Your task to perform on an android device: find which apps use the phone's location Image 0: 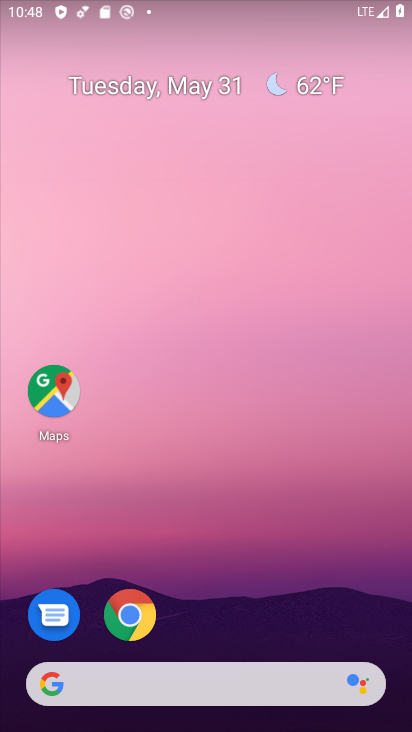
Step 0: drag from (194, 683) to (202, 75)
Your task to perform on an android device: find which apps use the phone's location Image 1: 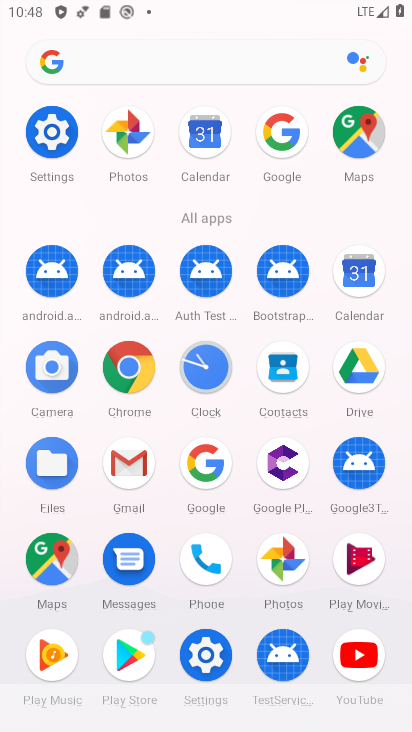
Step 1: click (48, 127)
Your task to perform on an android device: find which apps use the phone's location Image 2: 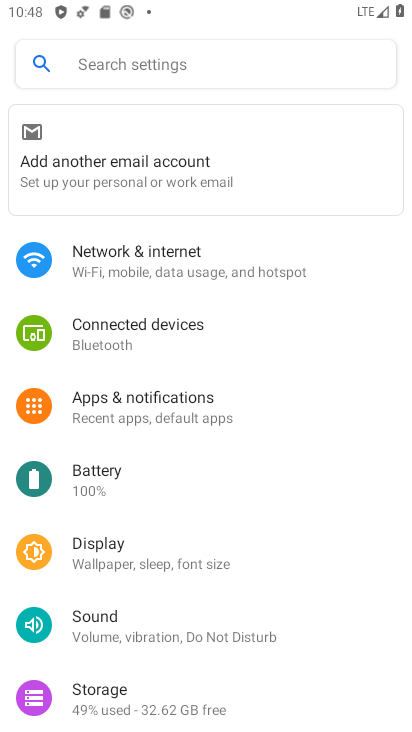
Step 2: drag from (136, 615) to (156, 74)
Your task to perform on an android device: find which apps use the phone's location Image 3: 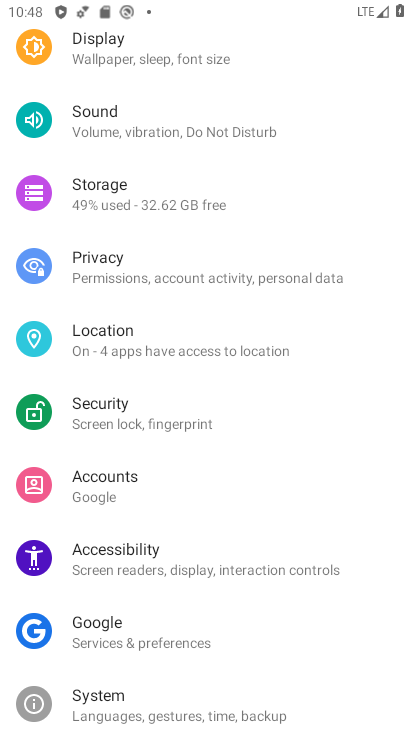
Step 3: click (110, 348)
Your task to perform on an android device: find which apps use the phone's location Image 4: 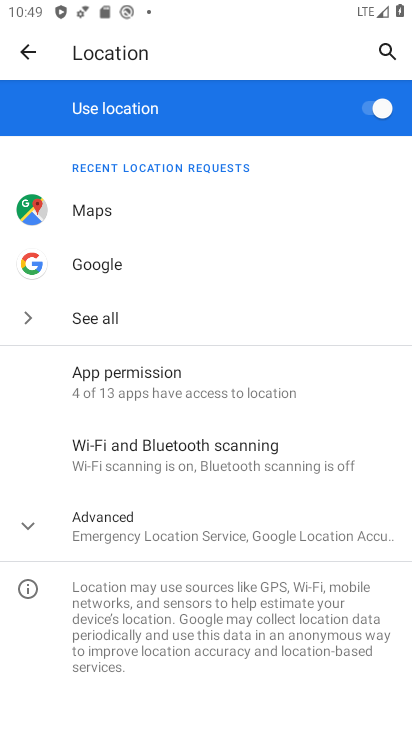
Step 4: click (137, 389)
Your task to perform on an android device: find which apps use the phone's location Image 5: 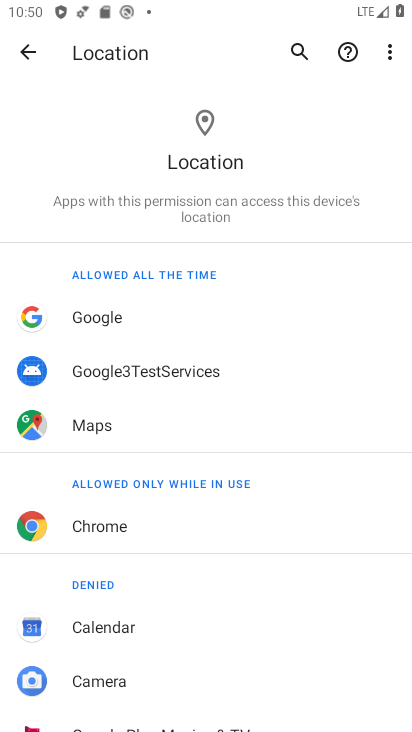
Step 5: task complete